Your task to perform on an android device: Go to display settings Image 0: 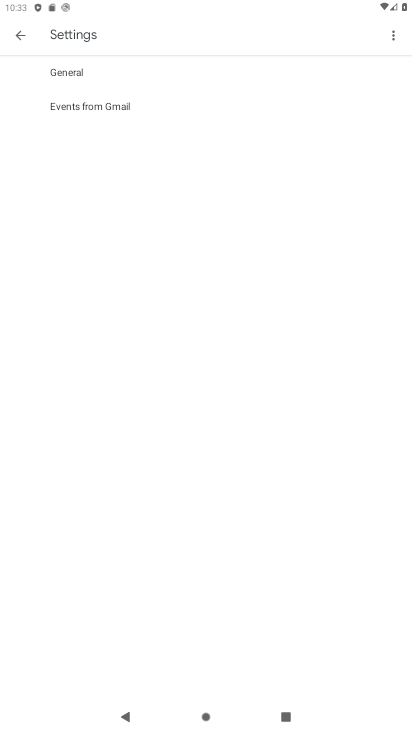
Step 0: press home button
Your task to perform on an android device: Go to display settings Image 1: 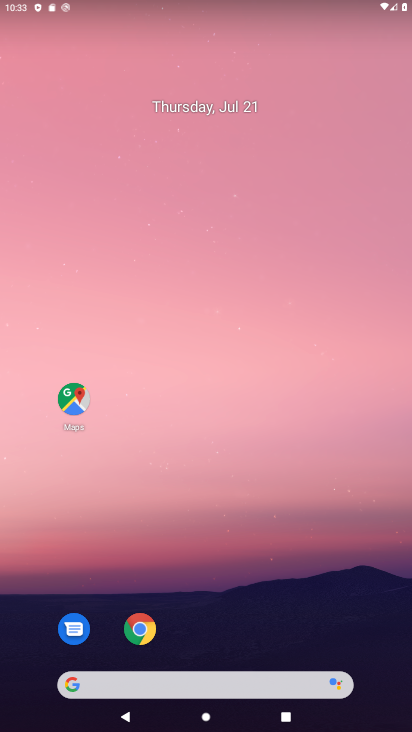
Step 1: drag from (237, 636) to (235, 115)
Your task to perform on an android device: Go to display settings Image 2: 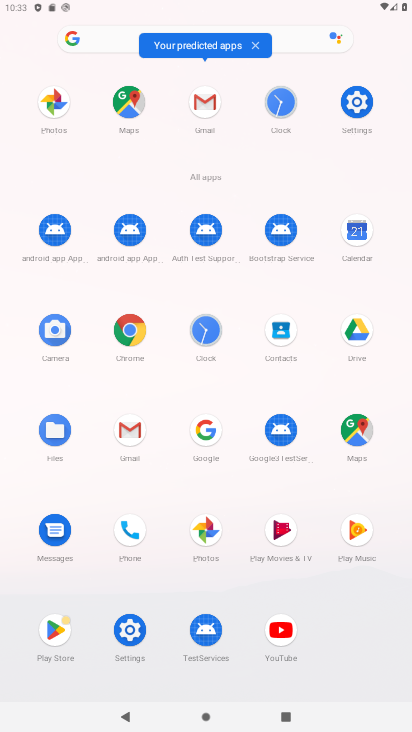
Step 2: click (359, 107)
Your task to perform on an android device: Go to display settings Image 3: 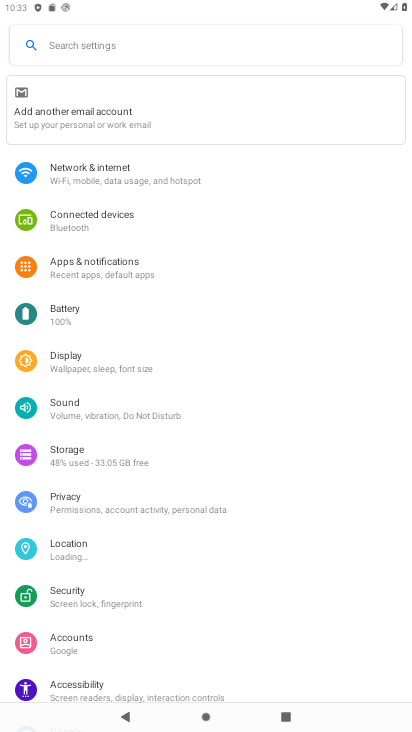
Step 3: click (113, 369)
Your task to perform on an android device: Go to display settings Image 4: 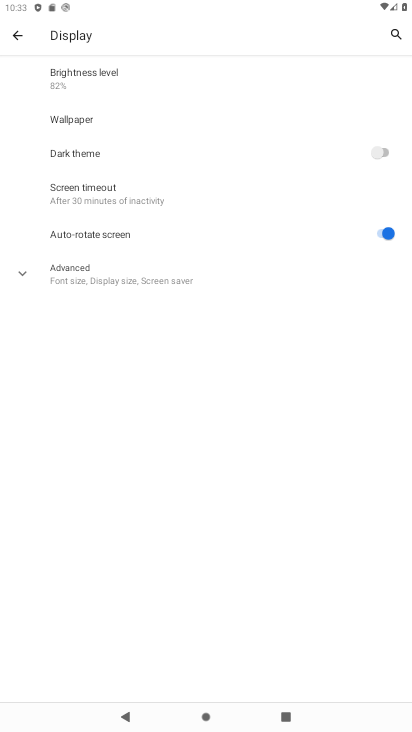
Step 4: task complete